Your task to perform on an android device: Open Google Maps and go to "Timeline" Image 0: 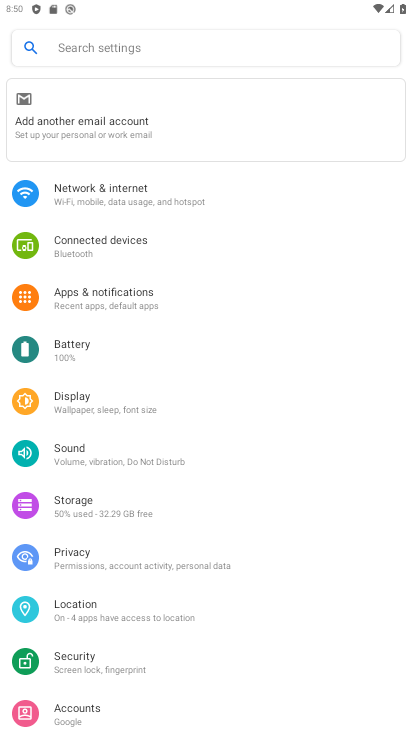
Step 0: press home button
Your task to perform on an android device: Open Google Maps and go to "Timeline" Image 1: 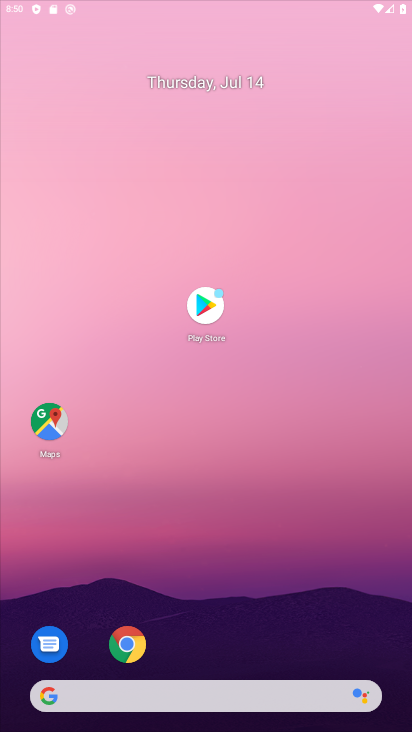
Step 1: drag from (171, 622) to (245, 295)
Your task to perform on an android device: Open Google Maps and go to "Timeline" Image 2: 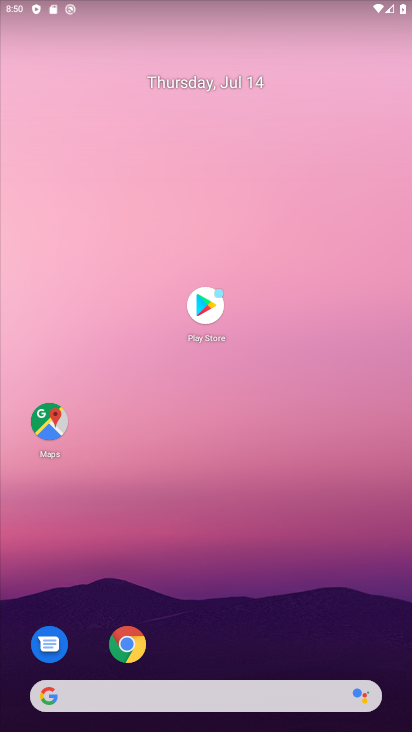
Step 2: drag from (169, 650) to (241, 149)
Your task to perform on an android device: Open Google Maps and go to "Timeline" Image 3: 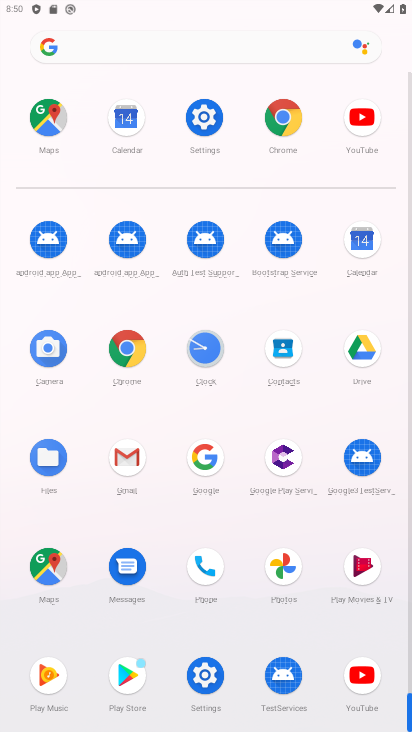
Step 3: click (55, 115)
Your task to perform on an android device: Open Google Maps and go to "Timeline" Image 4: 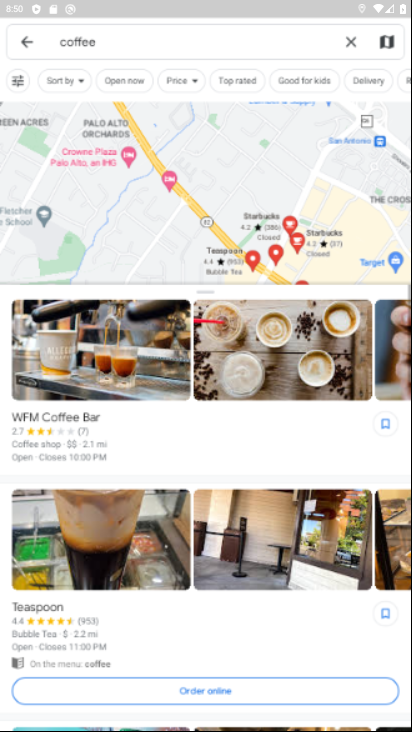
Step 4: click (343, 37)
Your task to perform on an android device: Open Google Maps and go to "Timeline" Image 5: 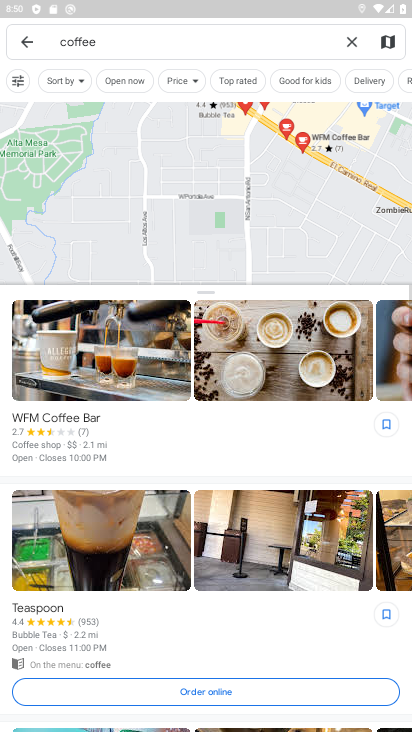
Step 5: click (348, 35)
Your task to perform on an android device: Open Google Maps and go to "Timeline" Image 6: 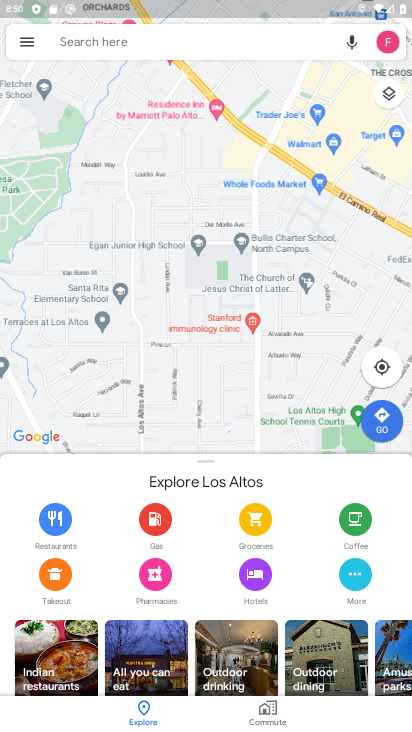
Step 6: click (211, 44)
Your task to perform on an android device: Open Google Maps and go to "Timeline" Image 7: 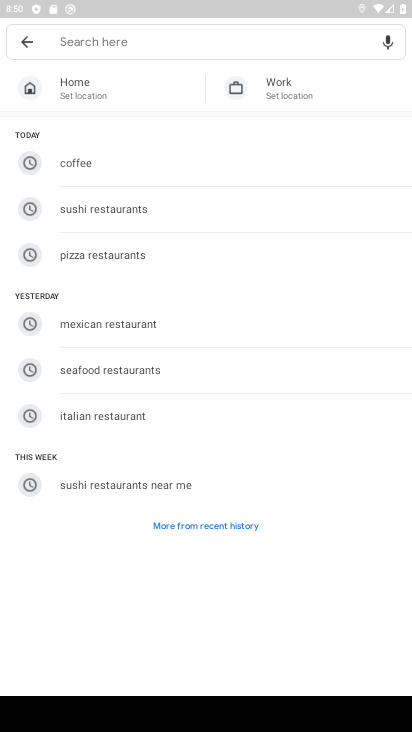
Step 7: click (24, 42)
Your task to perform on an android device: Open Google Maps and go to "Timeline" Image 8: 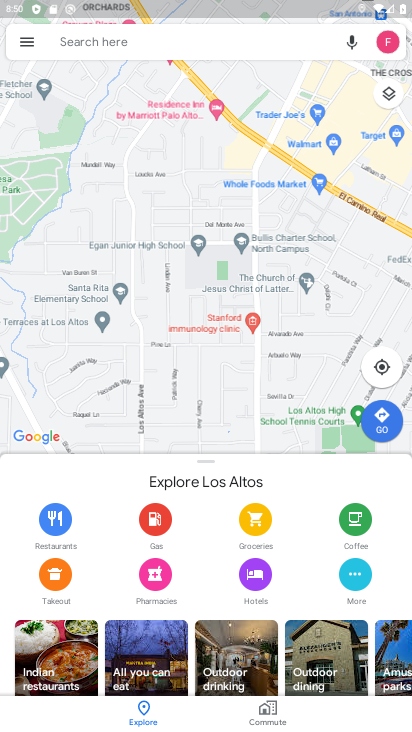
Step 8: click (24, 44)
Your task to perform on an android device: Open Google Maps and go to "Timeline" Image 9: 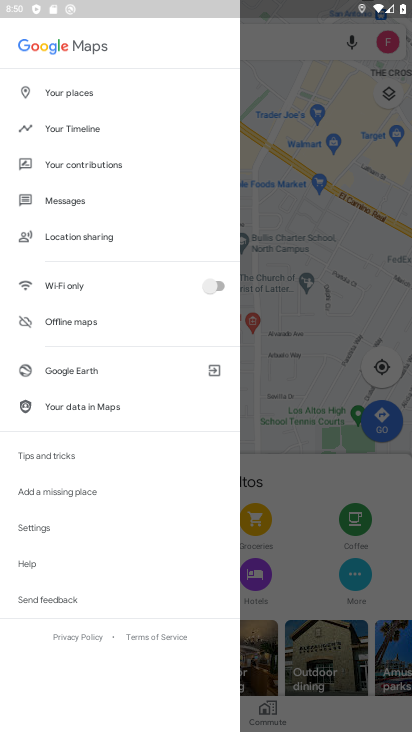
Step 9: click (70, 120)
Your task to perform on an android device: Open Google Maps and go to "Timeline" Image 10: 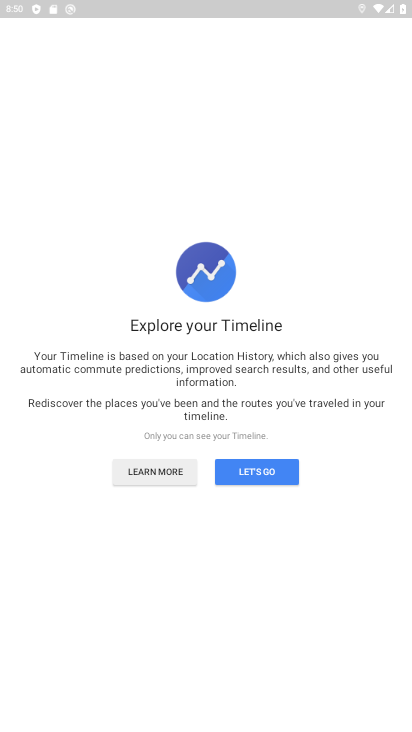
Step 10: click (243, 475)
Your task to perform on an android device: Open Google Maps and go to "Timeline" Image 11: 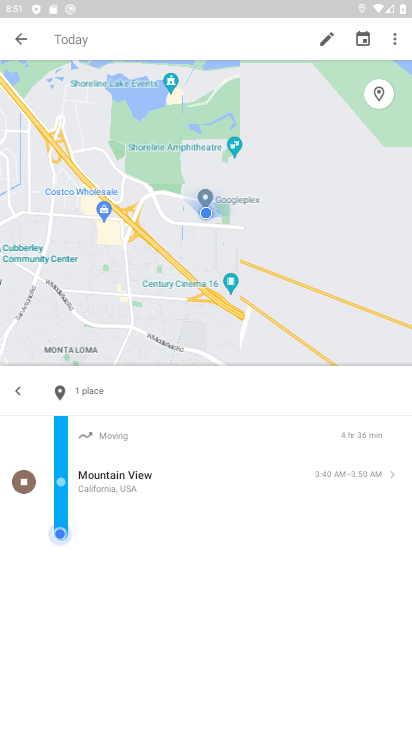
Step 11: task complete